Your task to perform on an android device: change the clock style Image 0: 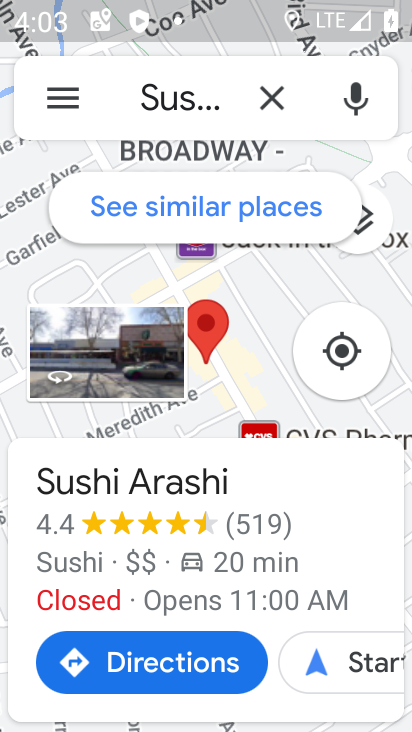
Step 0: press back button
Your task to perform on an android device: change the clock style Image 1: 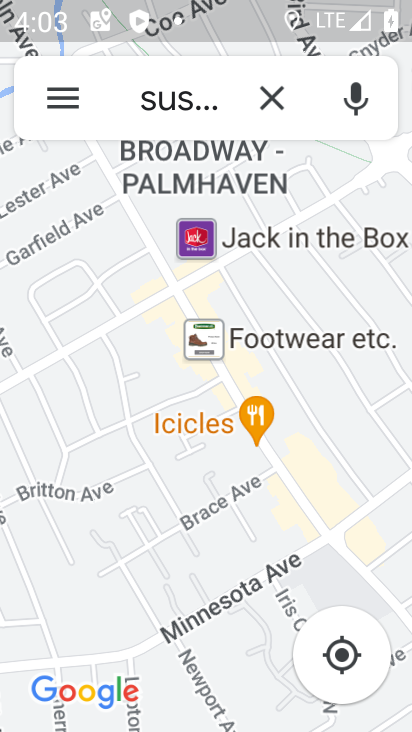
Step 1: press back button
Your task to perform on an android device: change the clock style Image 2: 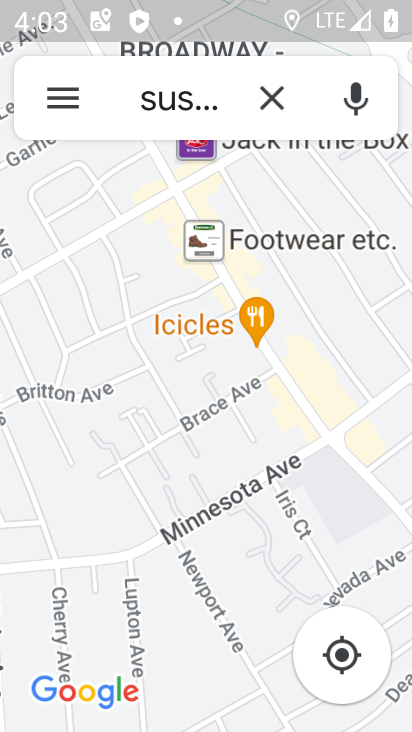
Step 2: press back button
Your task to perform on an android device: change the clock style Image 3: 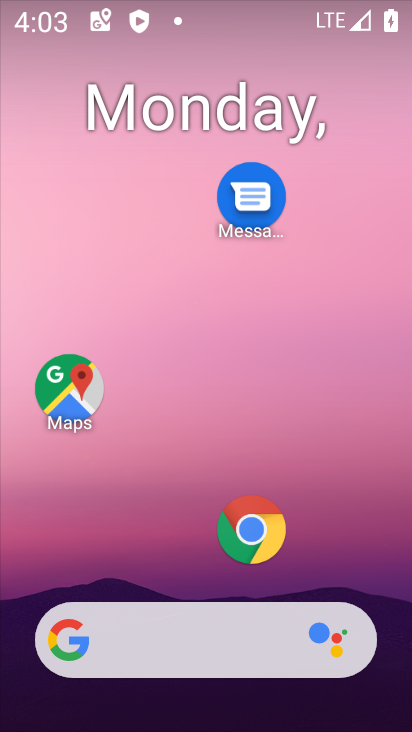
Step 3: drag from (174, 530) to (173, 130)
Your task to perform on an android device: change the clock style Image 4: 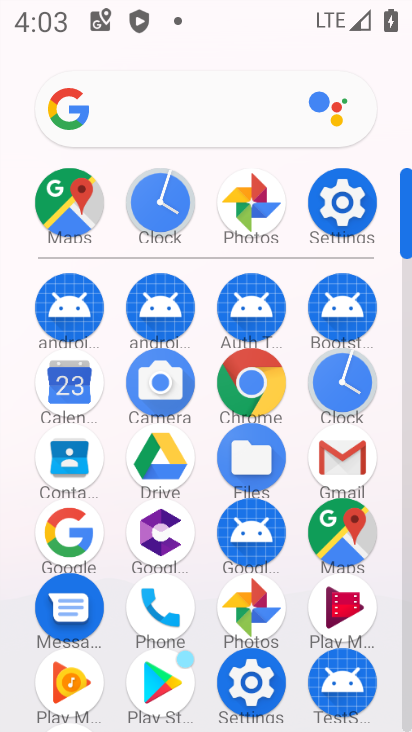
Step 4: click (337, 398)
Your task to perform on an android device: change the clock style Image 5: 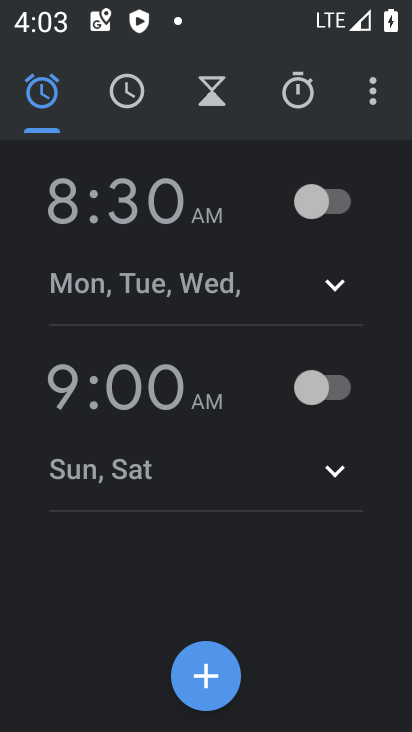
Step 5: click (377, 91)
Your task to perform on an android device: change the clock style Image 6: 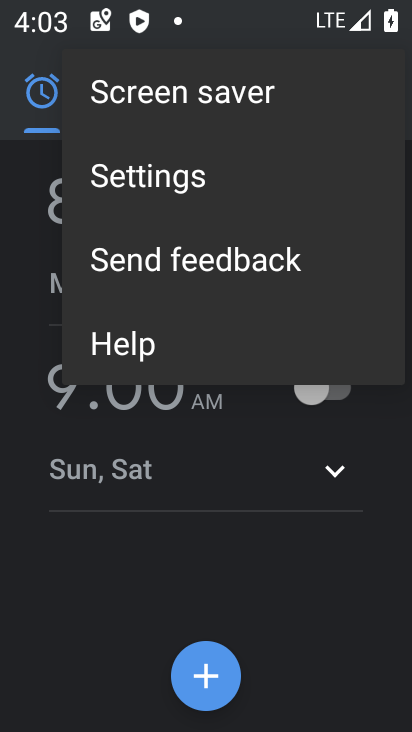
Step 6: click (174, 160)
Your task to perform on an android device: change the clock style Image 7: 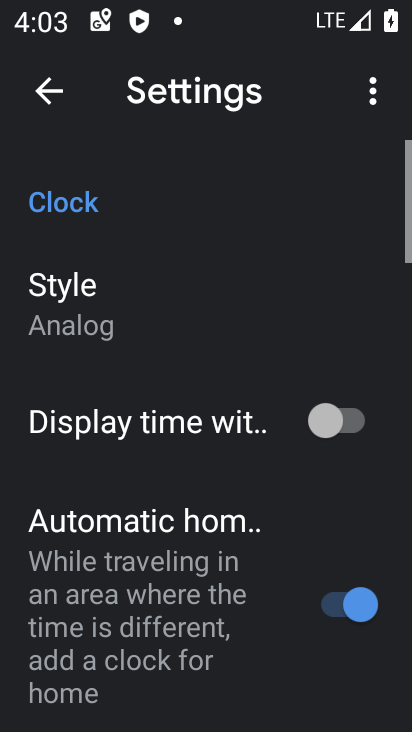
Step 7: click (98, 302)
Your task to perform on an android device: change the clock style Image 8: 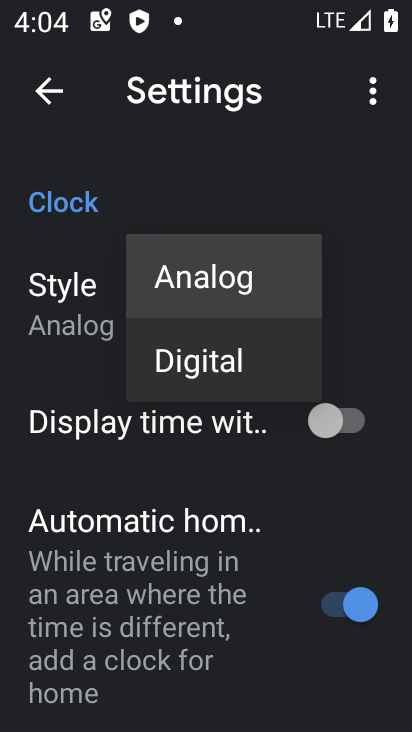
Step 8: click (221, 359)
Your task to perform on an android device: change the clock style Image 9: 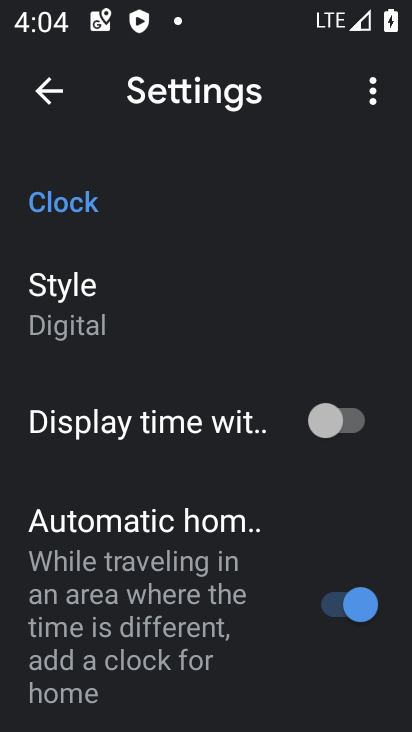
Step 9: task complete